Your task to perform on an android device: Open notification settings Image 0: 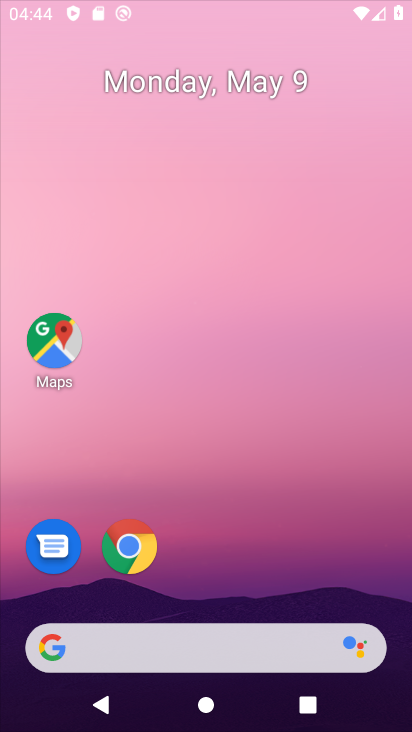
Step 0: click (250, 19)
Your task to perform on an android device: Open notification settings Image 1: 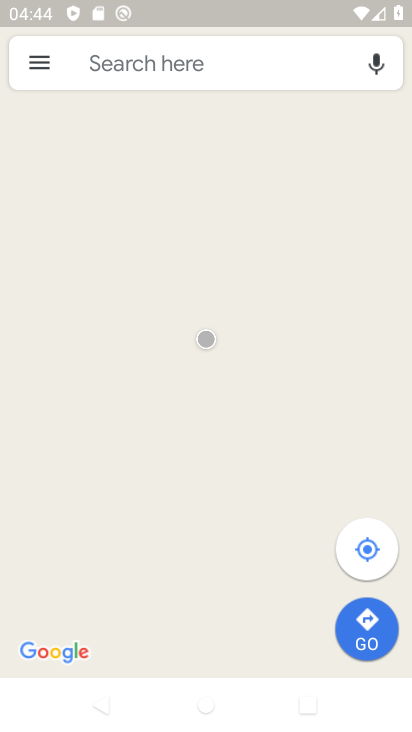
Step 1: press home button
Your task to perform on an android device: Open notification settings Image 2: 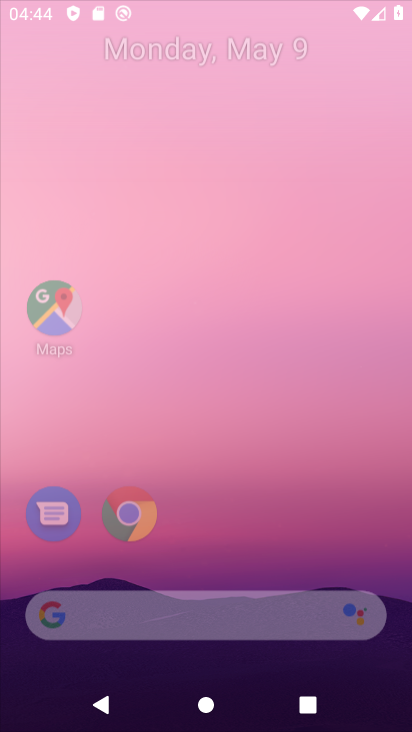
Step 2: drag from (205, 554) to (262, 36)
Your task to perform on an android device: Open notification settings Image 3: 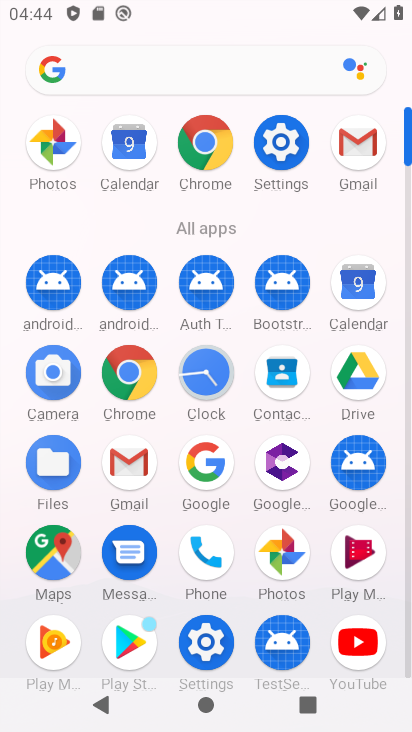
Step 3: click (284, 157)
Your task to perform on an android device: Open notification settings Image 4: 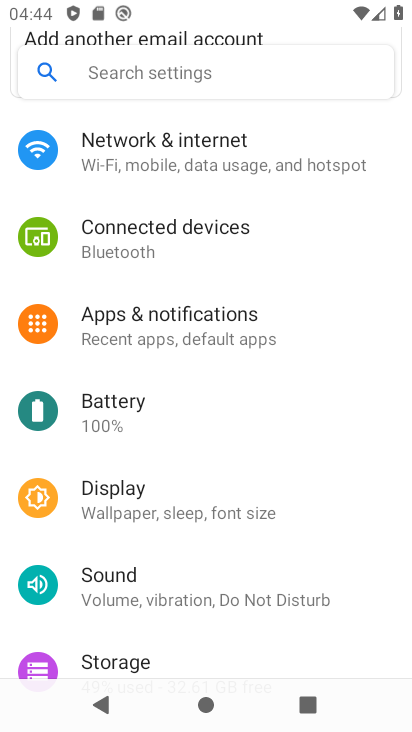
Step 4: click (186, 339)
Your task to perform on an android device: Open notification settings Image 5: 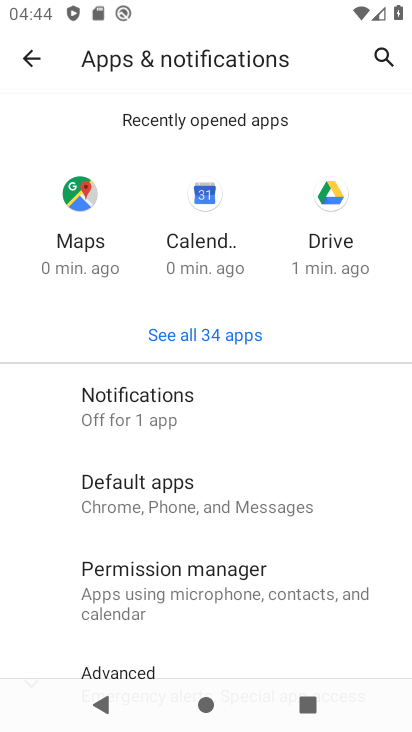
Step 5: click (175, 373)
Your task to perform on an android device: Open notification settings Image 6: 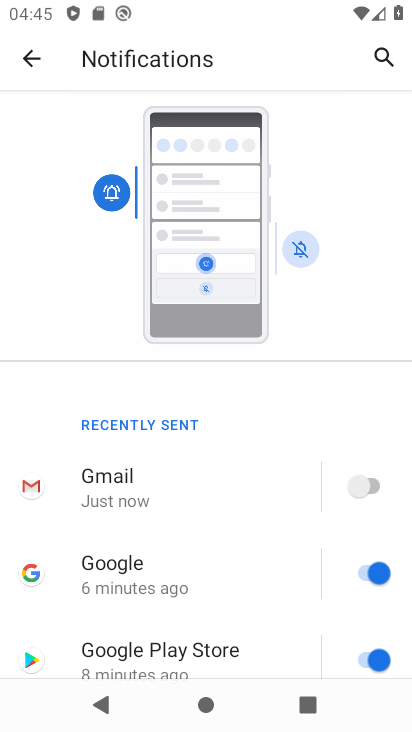
Step 6: task complete